Your task to perform on an android device: Open the phone app and click the voicemail tab. Image 0: 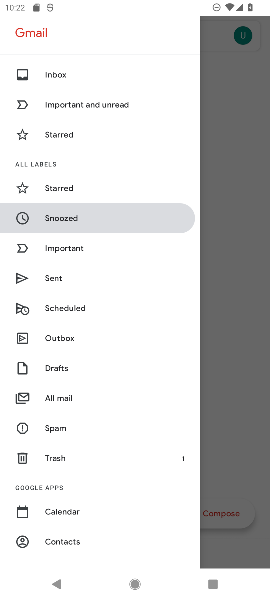
Step 0: press home button
Your task to perform on an android device: Open the phone app and click the voicemail tab. Image 1: 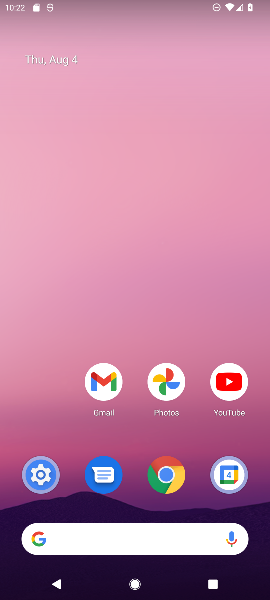
Step 1: drag from (166, 501) to (168, 177)
Your task to perform on an android device: Open the phone app and click the voicemail tab. Image 2: 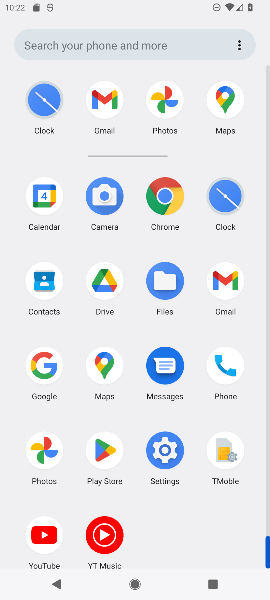
Step 2: click (170, 448)
Your task to perform on an android device: Open the phone app and click the voicemail tab. Image 3: 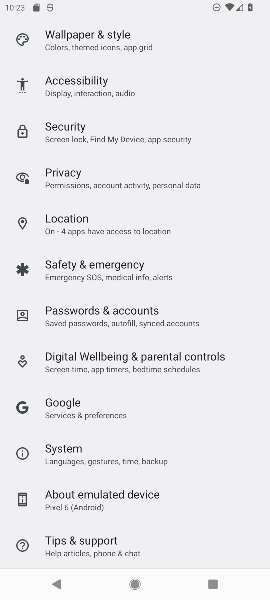
Step 3: drag from (132, 406) to (118, 22)
Your task to perform on an android device: Open the phone app and click the voicemail tab. Image 4: 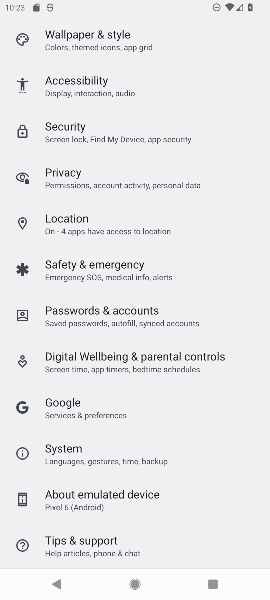
Step 4: drag from (147, 223) to (208, 598)
Your task to perform on an android device: Open the phone app and click the voicemail tab. Image 5: 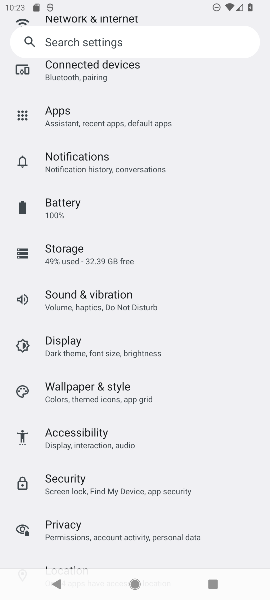
Step 5: drag from (172, 515) to (181, 206)
Your task to perform on an android device: Open the phone app and click the voicemail tab. Image 6: 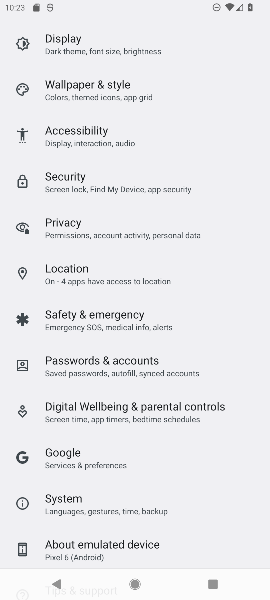
Step 6: drag from (96, 564) to (269, 102)
Your task to perform on an android device: Open the phone app and click the voicemail tab. Image 7: 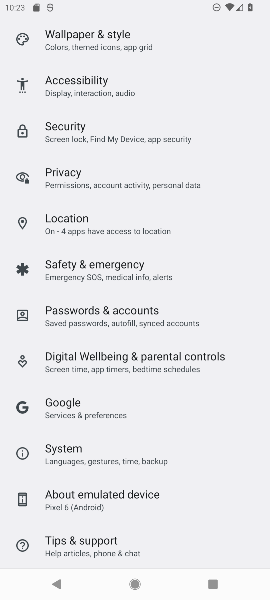
Step 7: drag from (145, 386) to (207, 192)
Your task to perform on an android device: Open the phone app and click the voicemail tab. Image 8: 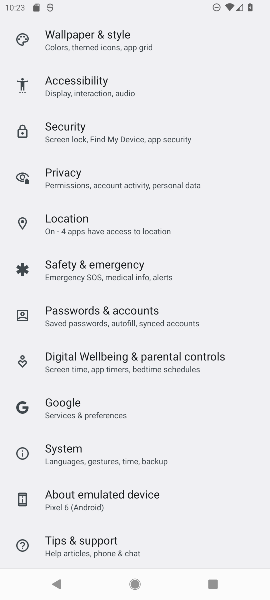
Step 8: drag from (133, 536) to (124, 257)
Your task to perform on an android device: Open the phone app and click the voicemail tab. Image 9: 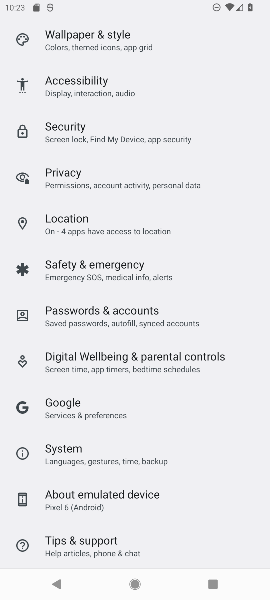
Step 9: drag from (174, 169) to (156, 145)
Your task to perform on an android device: Open the phone app and click the voicemail tab. Image 10: 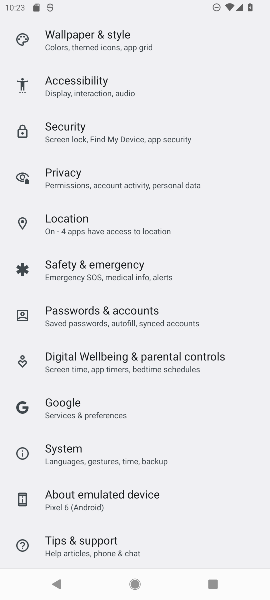
Step 10: drag from (91, 520) to (125, 285)
Your task to perform on an android device: Open the phone app and click the voicemail tab. Image 11: 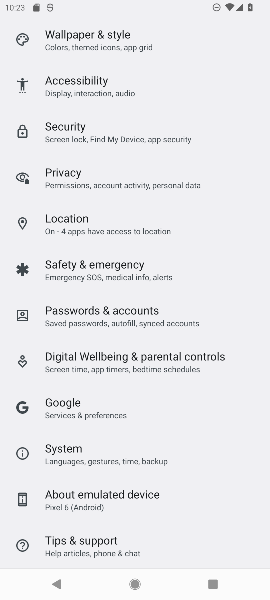
Step 11: drag from (149, 185) to (216, 593)
Your task to perform on an android device: Open the phone app and click the voicemail tab. Image 12: 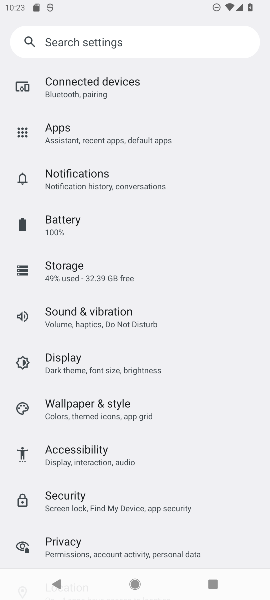
Step 12: drag from (156, 523) to (213, 164)
Your task to perform on an android device: Open the phone app and click the voicemail tab. Image 13: 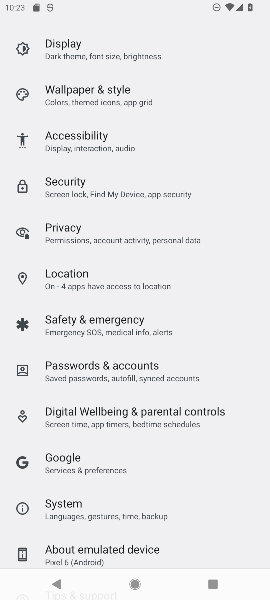
Step 13: drag from (134, 247) to (268, 554)
Your task to perform on an android device: Open the phone app and click the voicemail tab. Image 14: 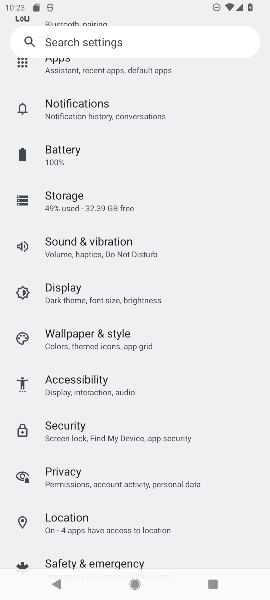
Step 14: drag from (109, 521) to (190, 180)
Your task to perform on an android device: Open the phone app and click the voicemail tab. Image 15: 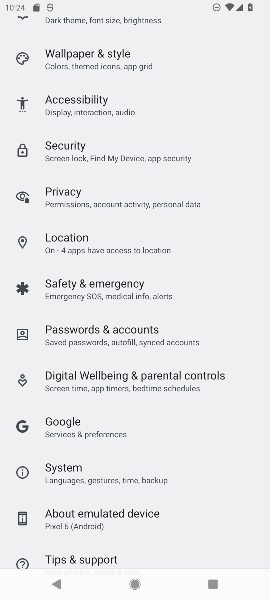
Step 15: drag from (154, 482) to (178, 154)
Your task to perform on an android device: Open the phone app and click the voicemail tab. Image 16: 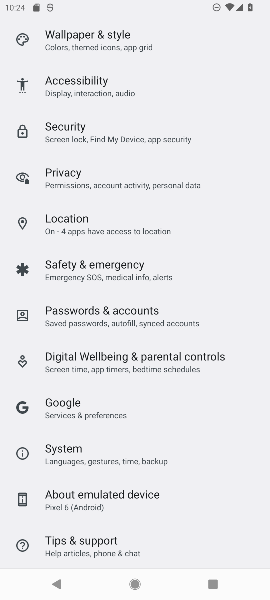
Step 16: press home button
Your task to perform on an android device: Open the phone app and click the voicemail tab. Image 17: 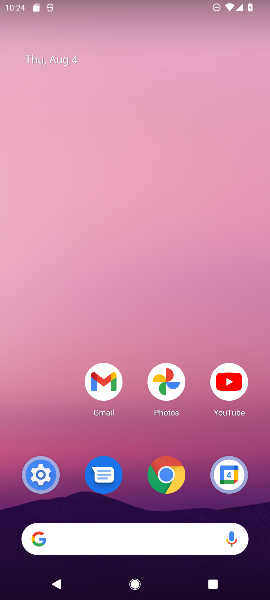
Step 17: drag from (105, 487) to (150, 24)
Your task to perform on an android device: Open the phone app and click the voicemail tab. Image 18: 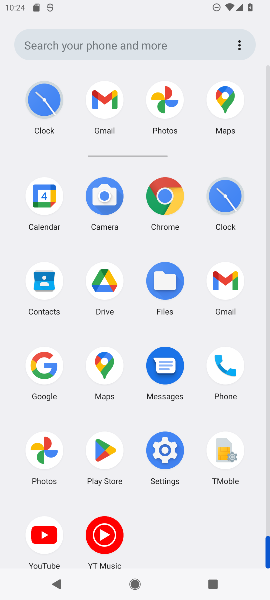
Step 18: click (225, 368)
Your task to perform on an android device: Open the phone app and click the voicemail tab. Image 19: 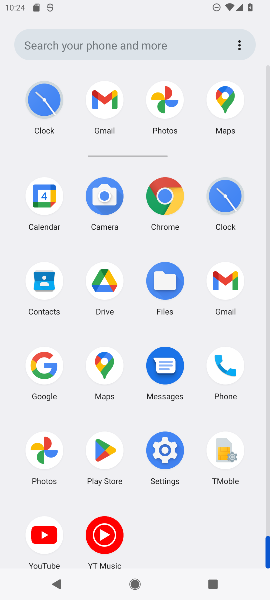
Step 19: click (225, 368)
Your task to perform on an android device: Open the phone app and click the voicemail tab. Image 20: 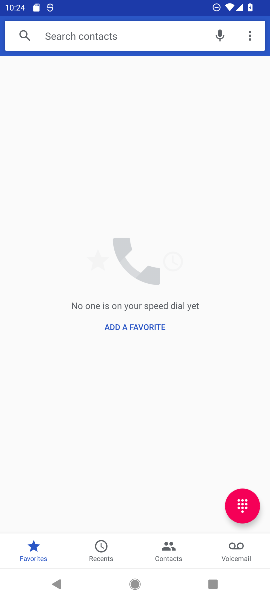
Step 20: click (235, 547)
Your task to perform on an android device: Open the phone app and click the voicemail tab. Image 21: 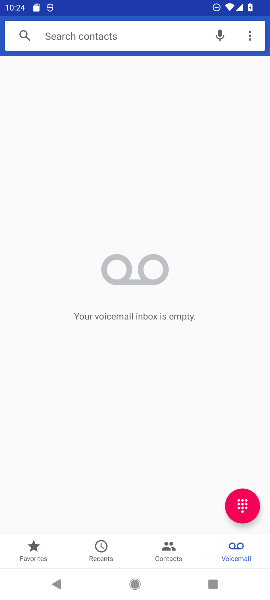
Step 21: task complete